Your task to perform on an android device: move a message to another label in the gmail app Image 0: 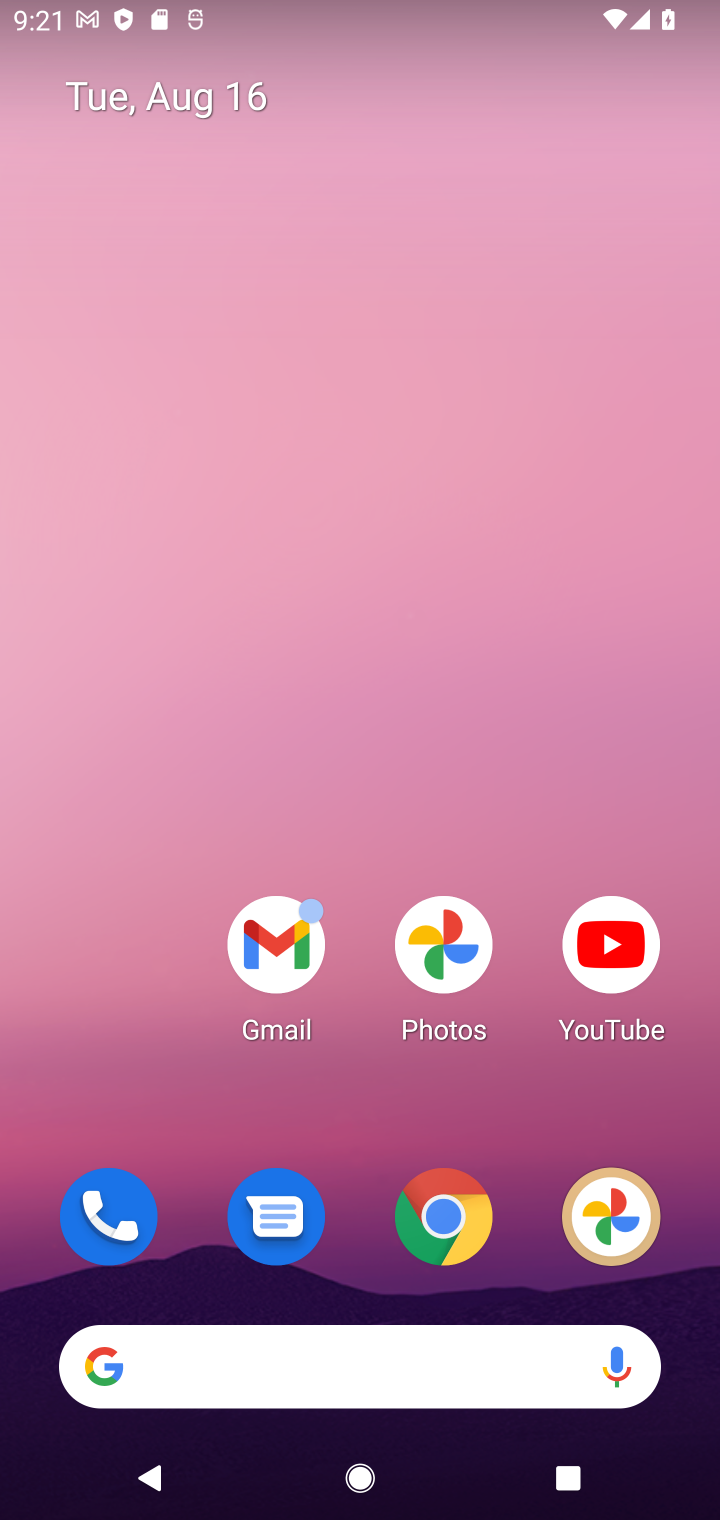
Step 0: click (274, 949)
Your task to perform on an android device: move a message to another label in the gmail app Image 1: 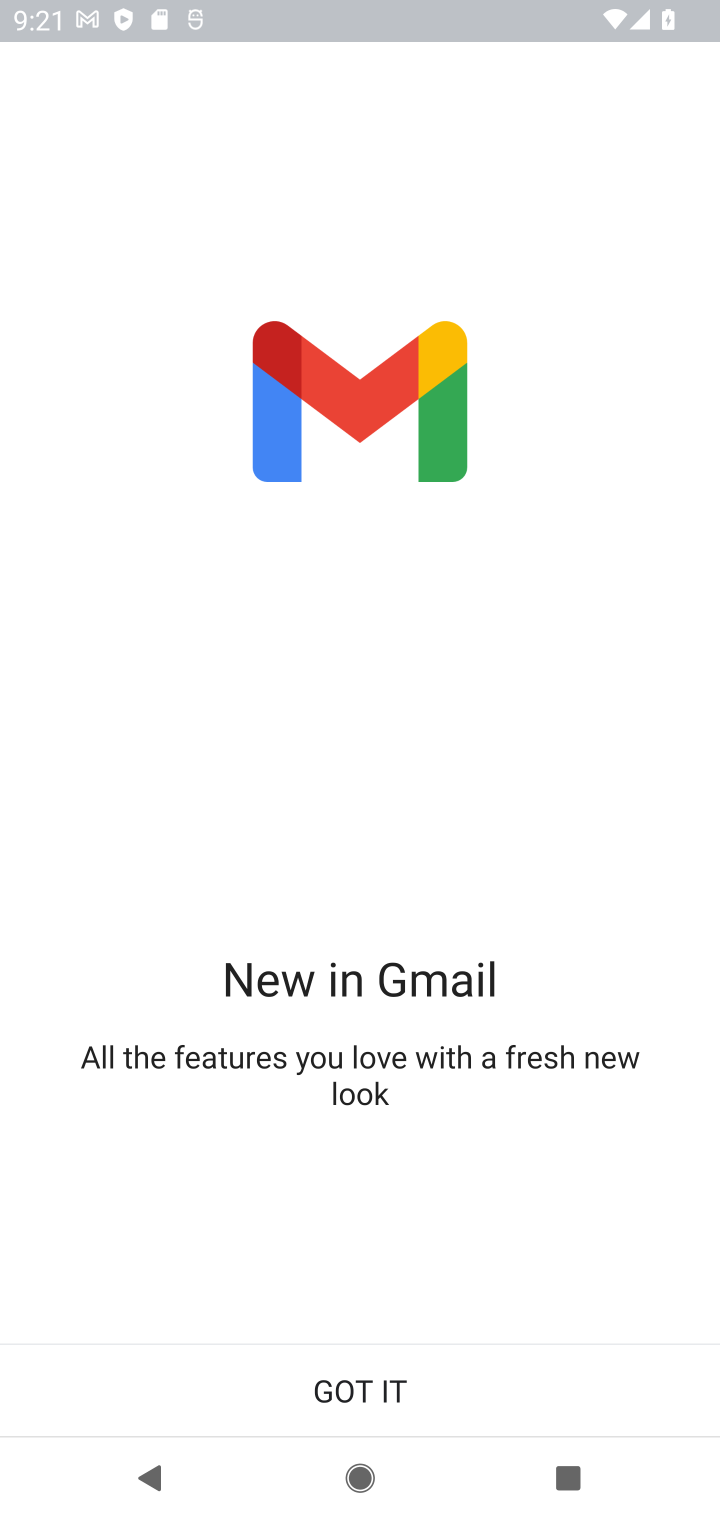
Step 1: click (368, 1372)
Your task to perform on an android device: move a message to another label in the gmail app Image 2: 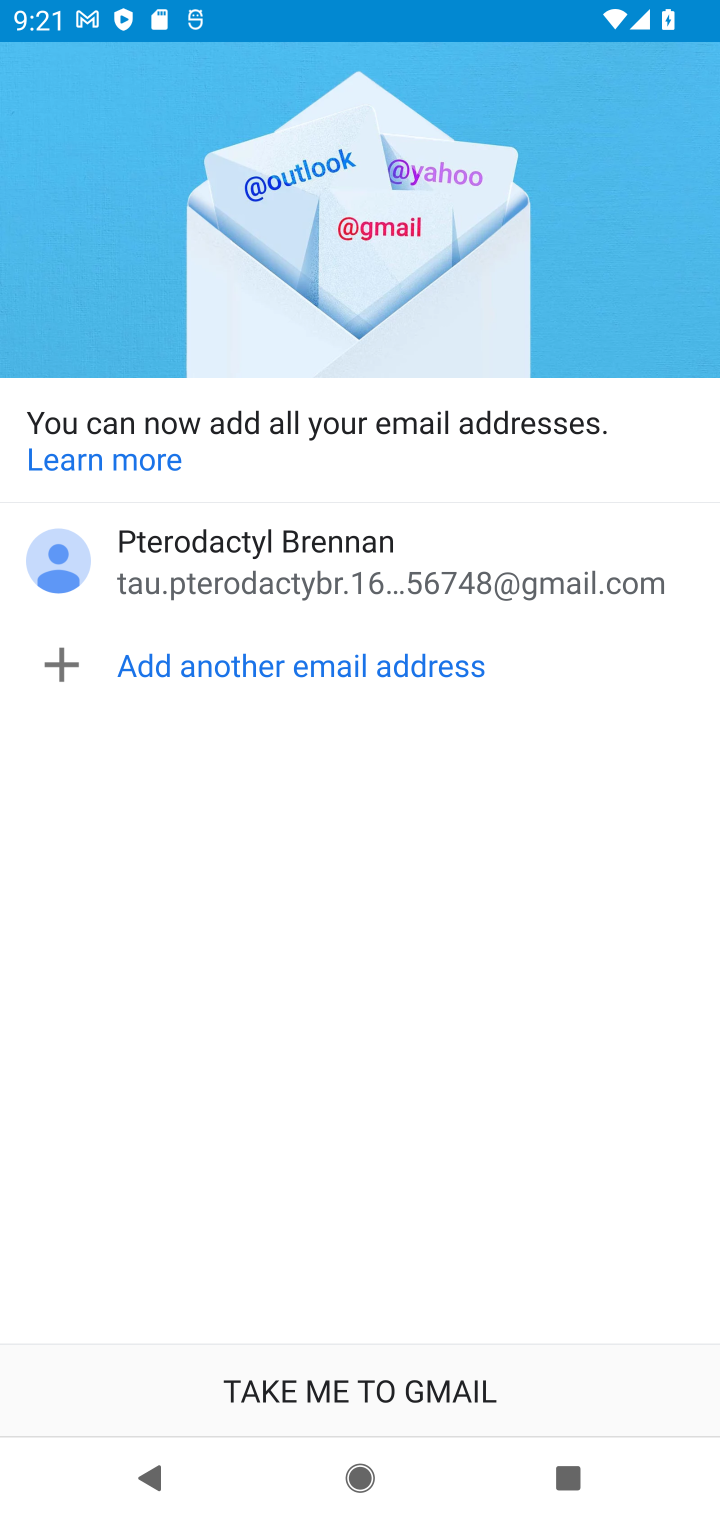
Step 2: click (368, 1372)
Your task to perform on an android device: move a message to another label in the gmail app Image 3: 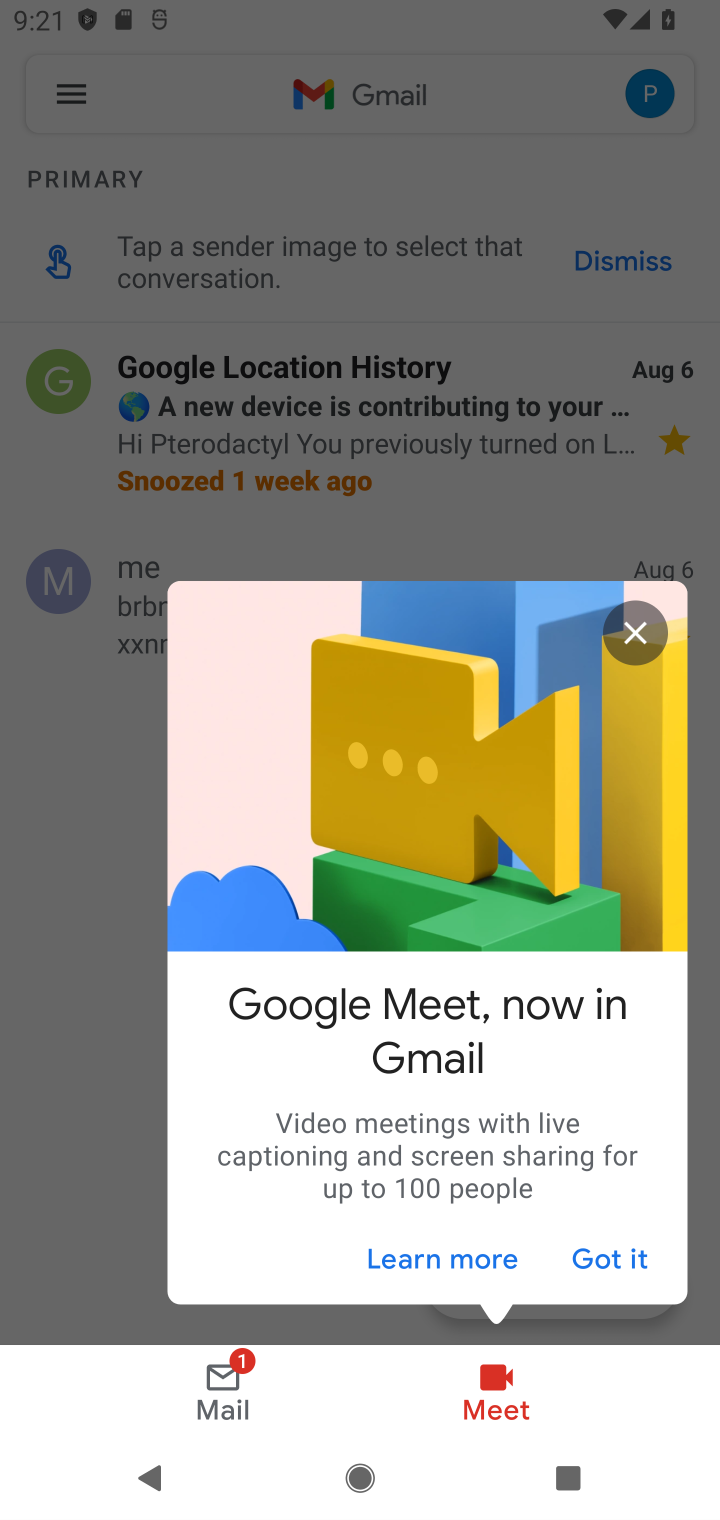
Step 3: click (628, 625)
Your task to perform on an android device: move a message to another label in the gmail app Image 4: 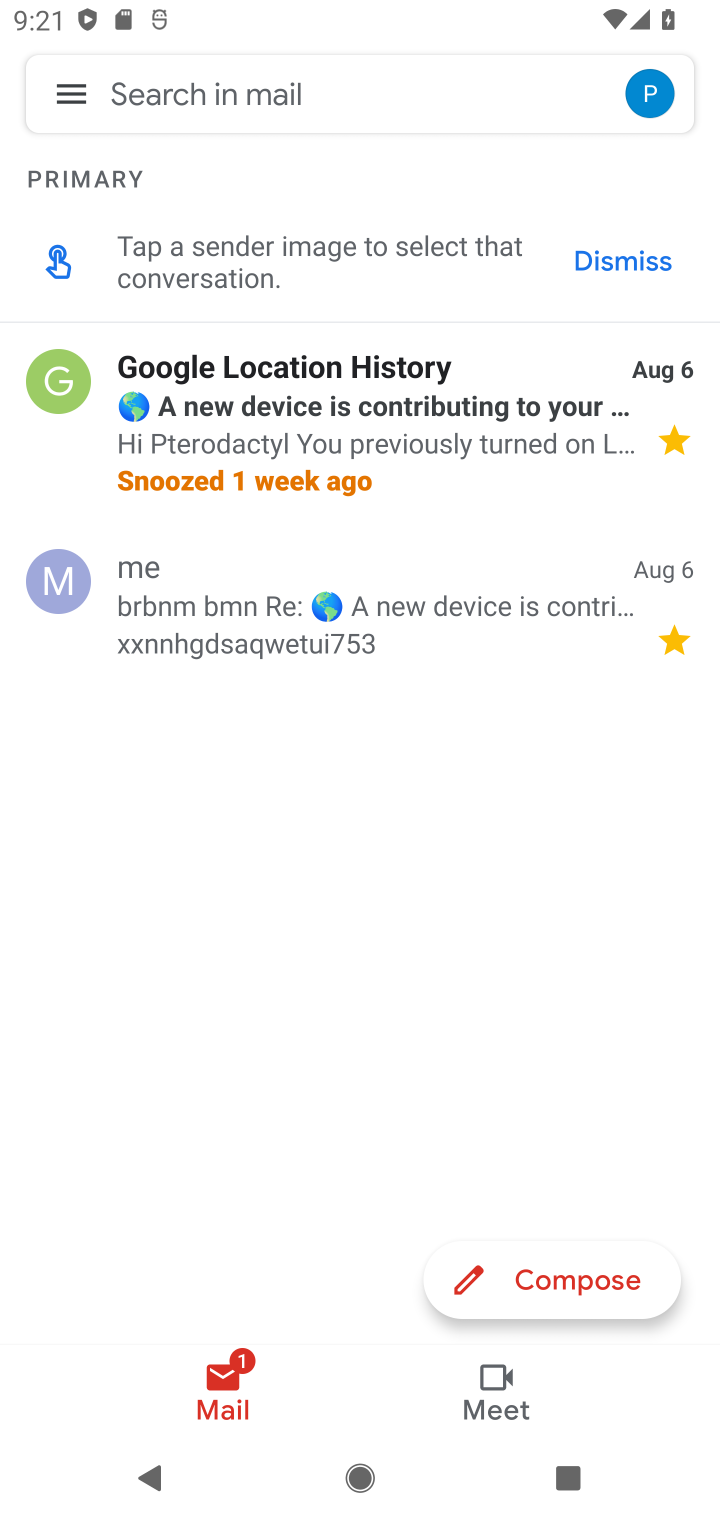
Step 4: click (256, 425)
Your task to perform on an android device: move a message to another label in the gmail app Image 5: 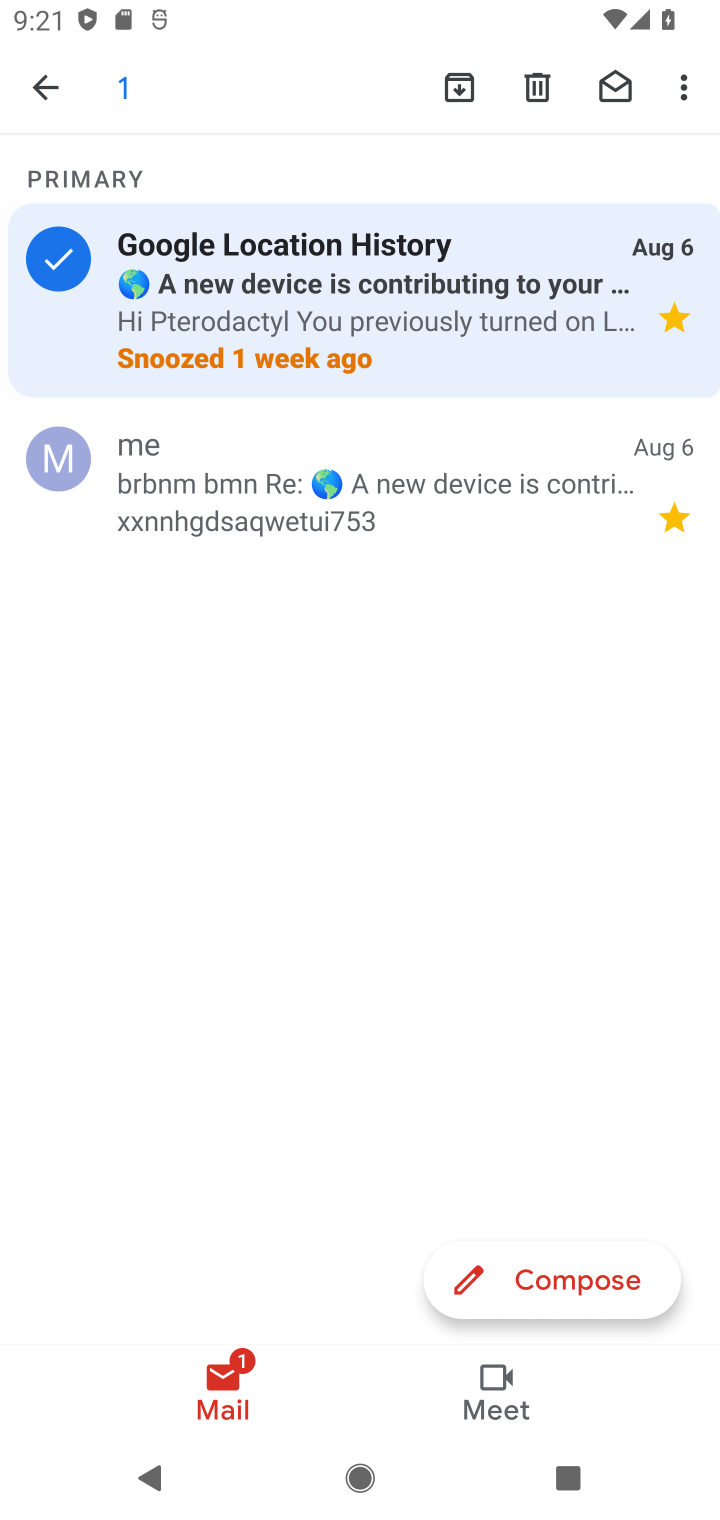
Step 5: click (684, 90)
Your task to perform on an android device: move a message to another label in the gmail app Image 6: 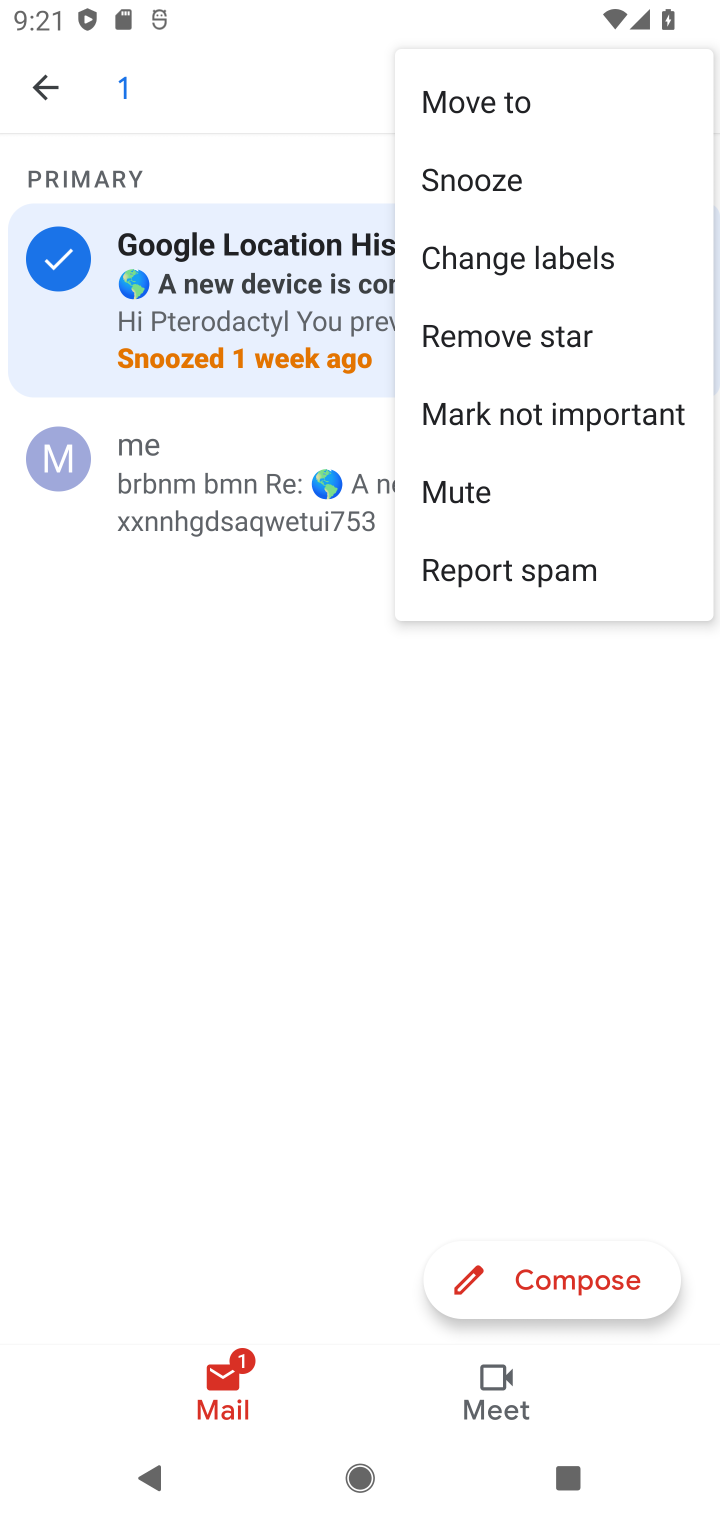
Step 6: click (483, 102)
Your task to perform on an android device: move a message to another label in the gmail app Image 7: 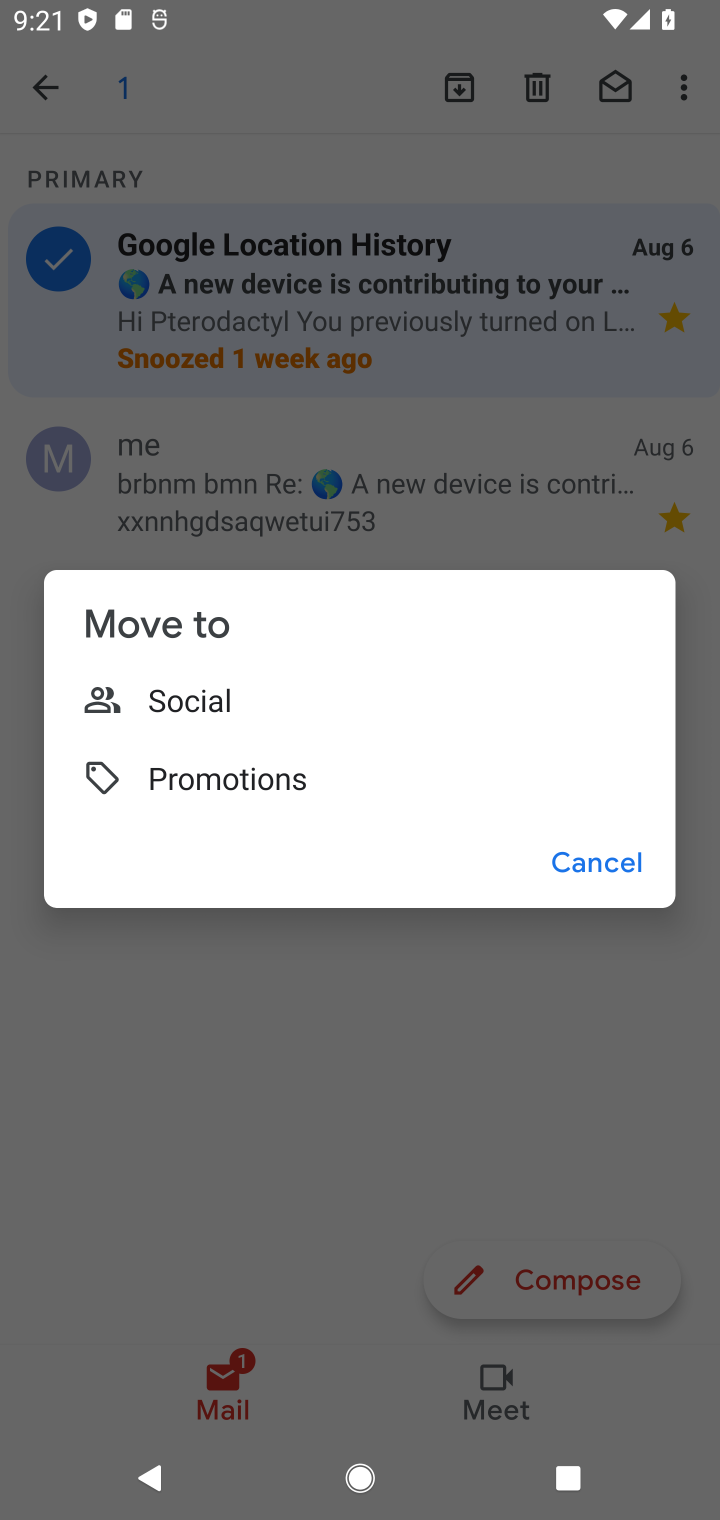
Step 7: click (171, 719)
Your task to perform on an android device: move a message to another label in the gmail app Image 8: 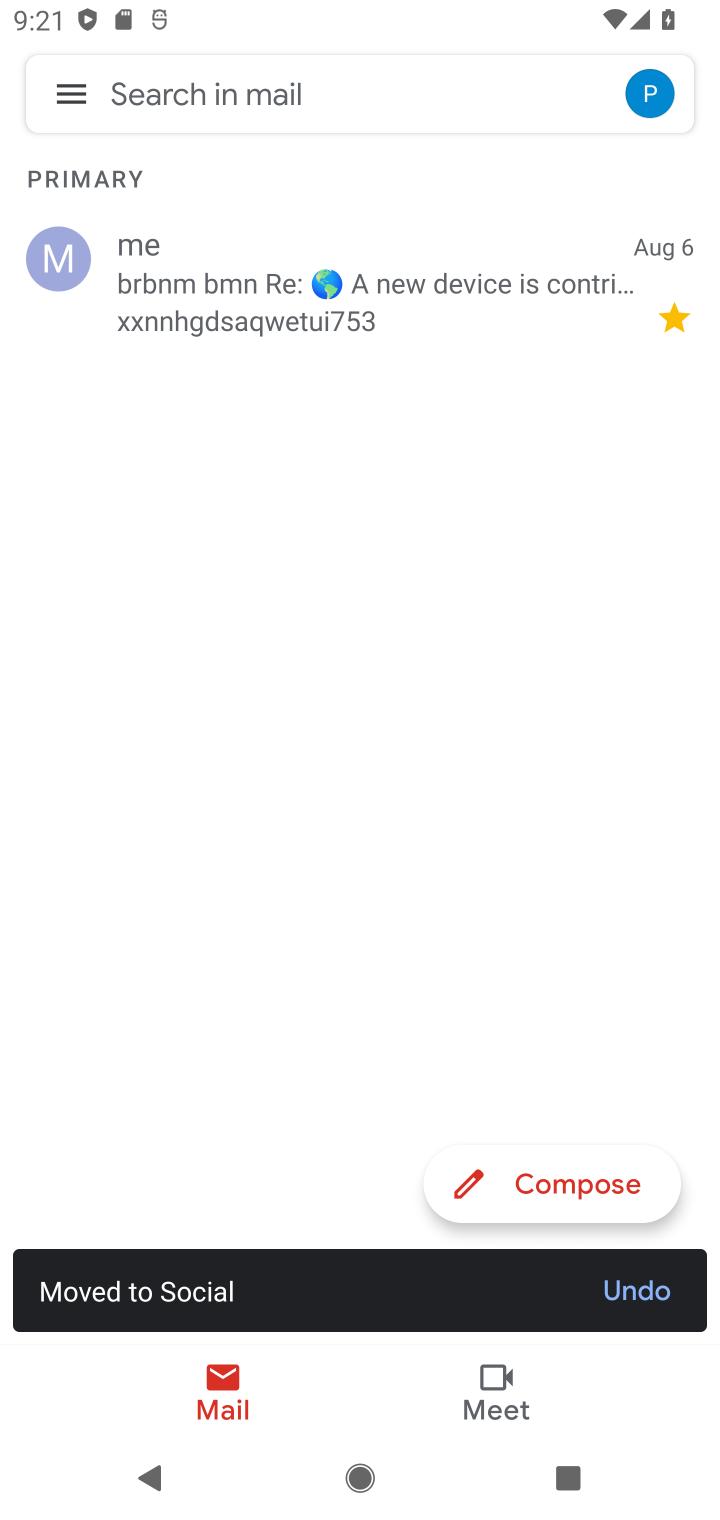
Step 8: task complete